Your task to perform on an android device: stop showing notifications on the lock screen Image 0: 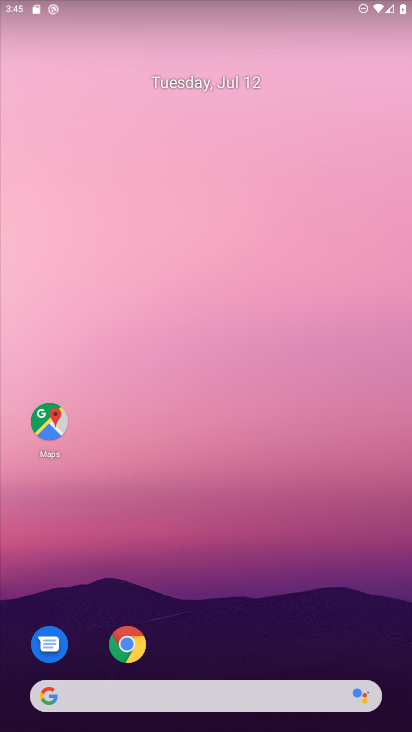
Step 0: drag from (365, 615) to (329, 171)
Your task to perform on an android device: stop showing notifications on the lock screen Image 1: 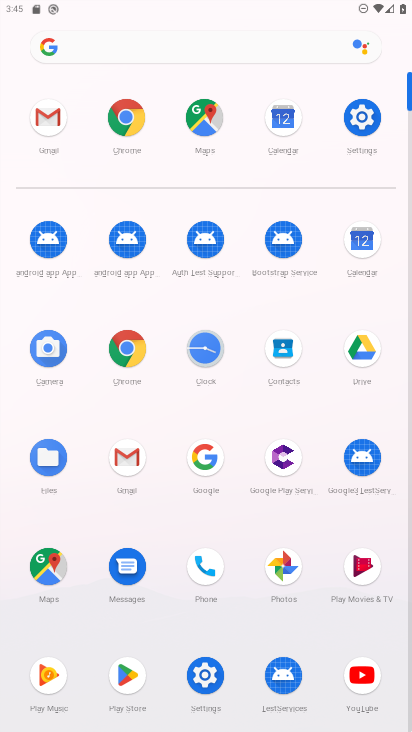
Step 1: click (372, 130)
Your task to perform on an android device: stop showing notifications on the lock screen Image 2: 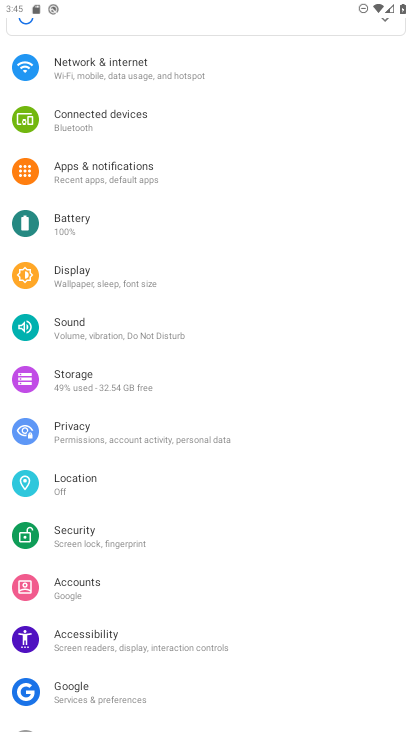
Step 2: click (84, 173)
Your task to perform on an android device: stop showing notifications on the lock screen Image 3: 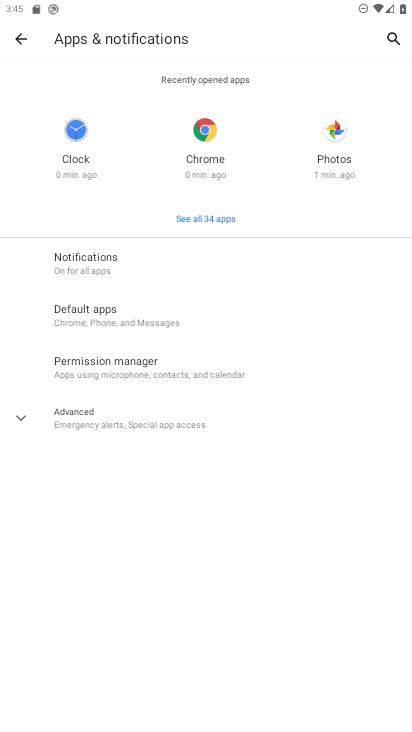
Step 3: click (150, 259)
Your task to perform on an android device: stop showing notifications on the lock screen Image 4: 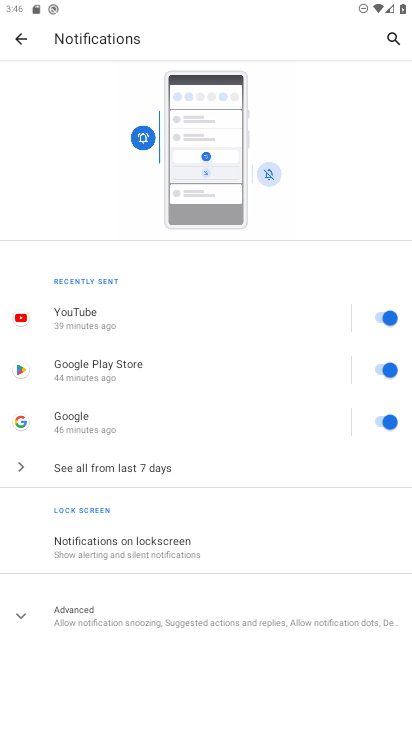
Step 4: click (153, 554)
Your task to perform on an android device: stop showing notifications on the lock screen Image 5: 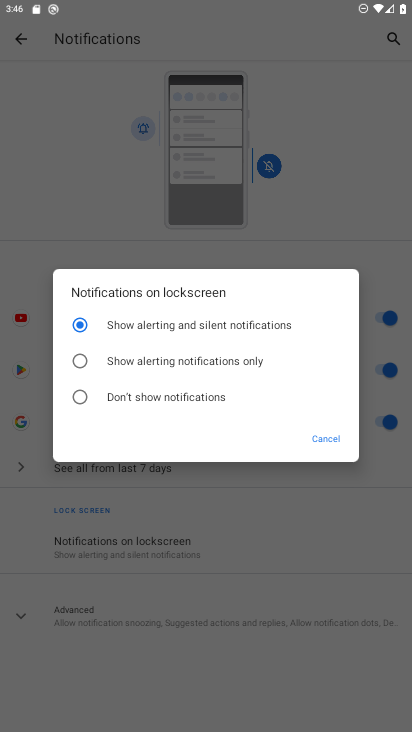
Step 5: click (195, 401)
Your task to perform on an android device: stop showing notifications on the lock screen Image 6: 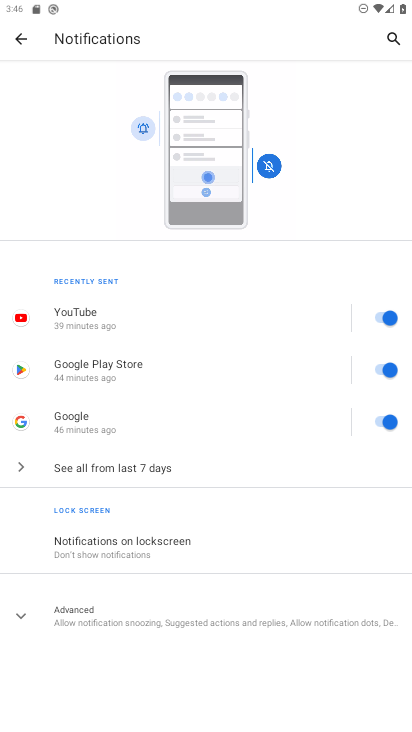
Step 6: task complete